Your task to perform on an android device: add a label to a message in the gmail app Image 0: 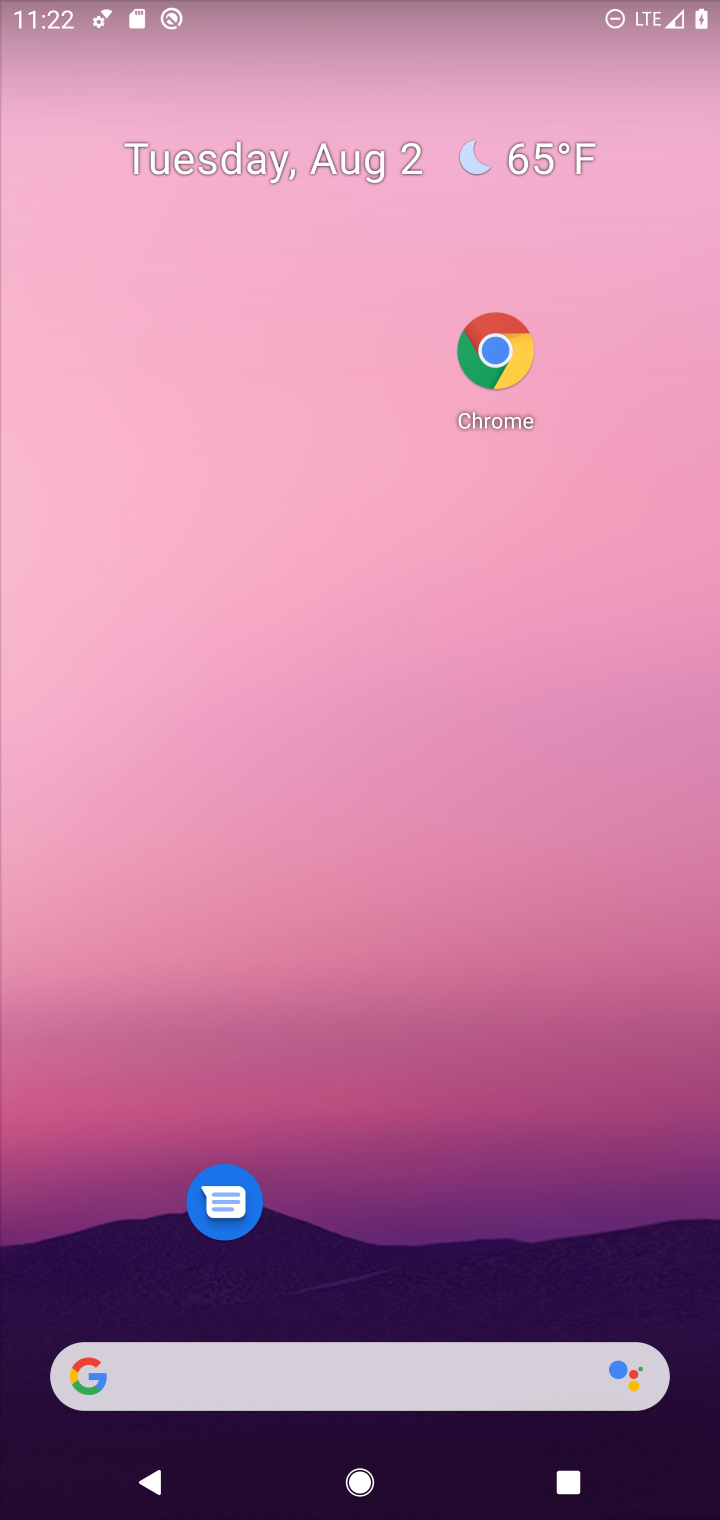
Step 0: drag from (331, 1171) to (395, 217)
Your task to perform on an android device: add a label to a message in the gmail app Image 1: 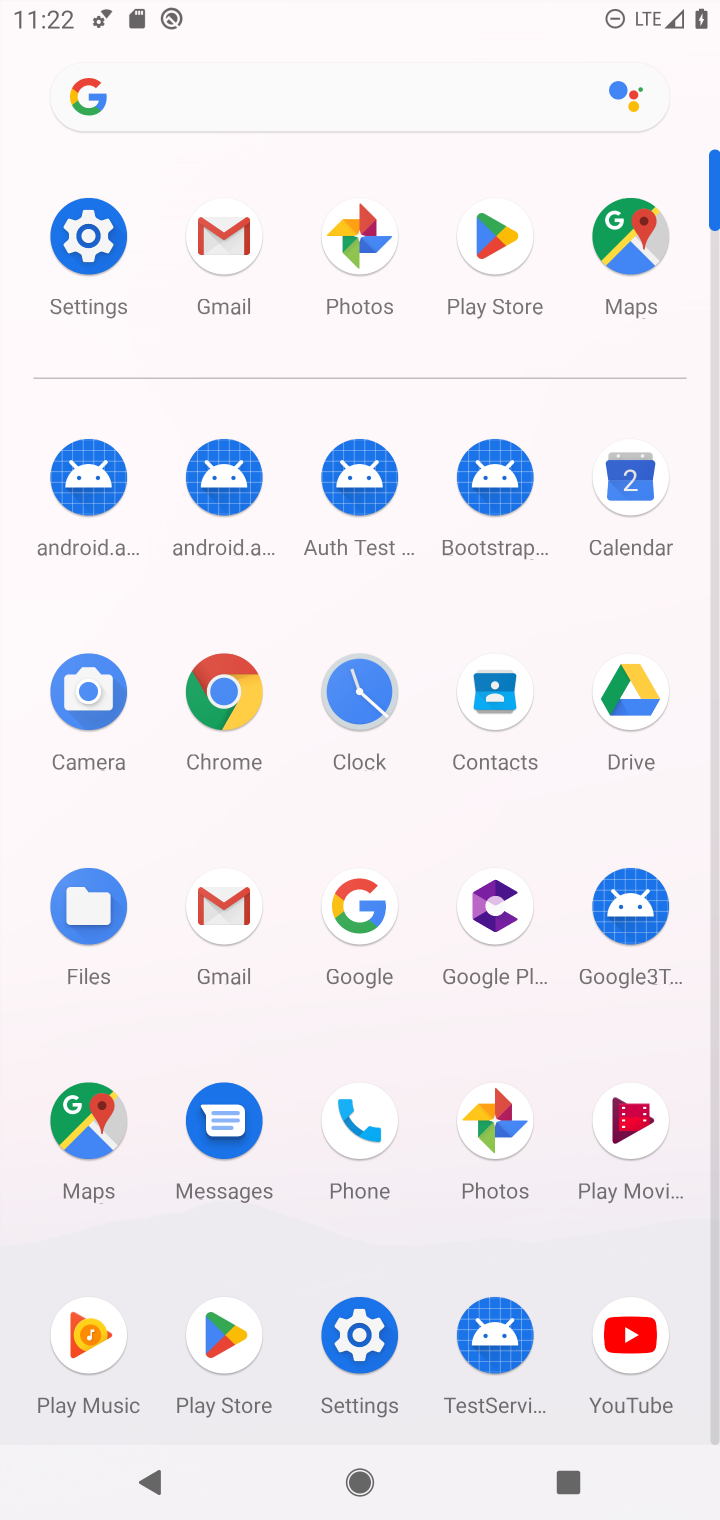
Step 1: click (229, 244)
Your task to perform on an android device: add a label to a message in the gmail app Image 2: 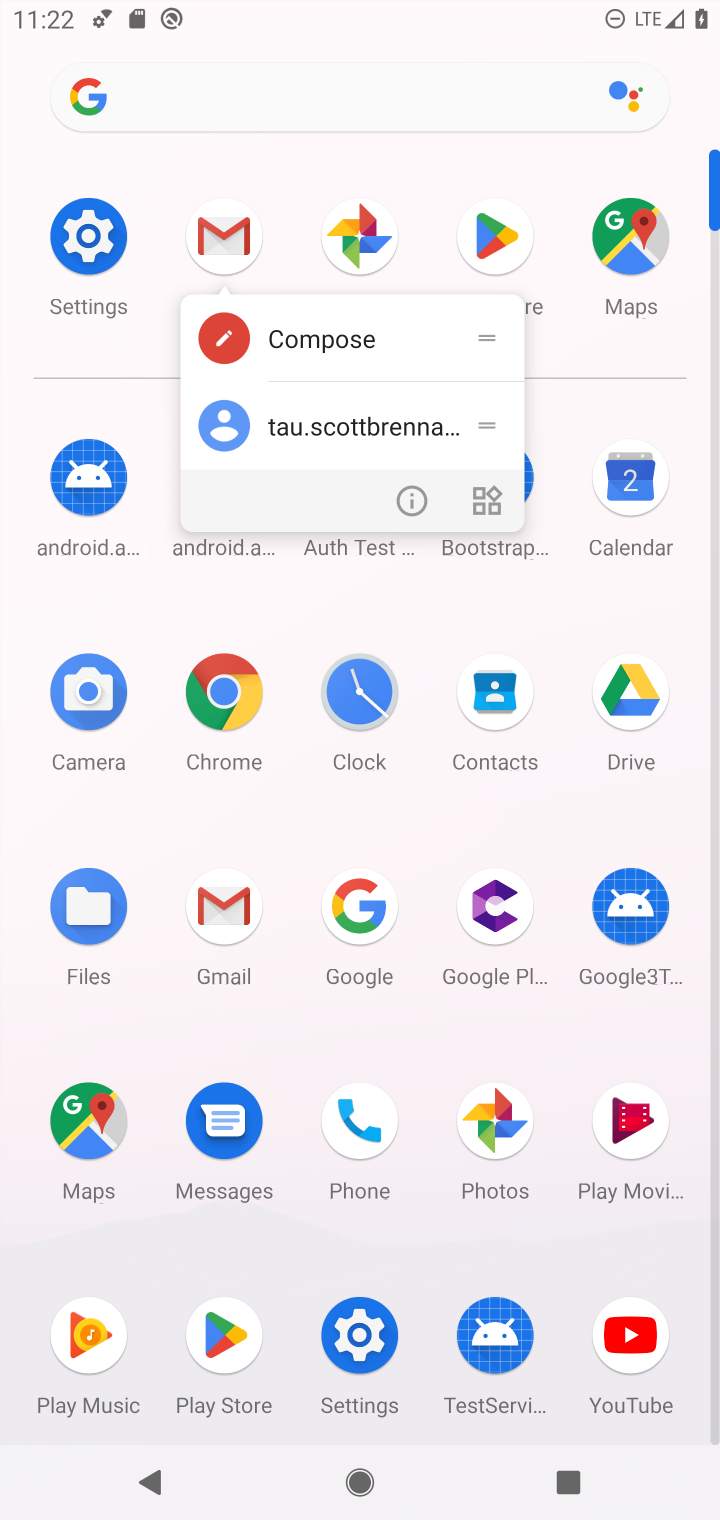
Step 2: click (229, 244)
Your task to perform on an android device: add a label to a message in the gmail app Image 3: 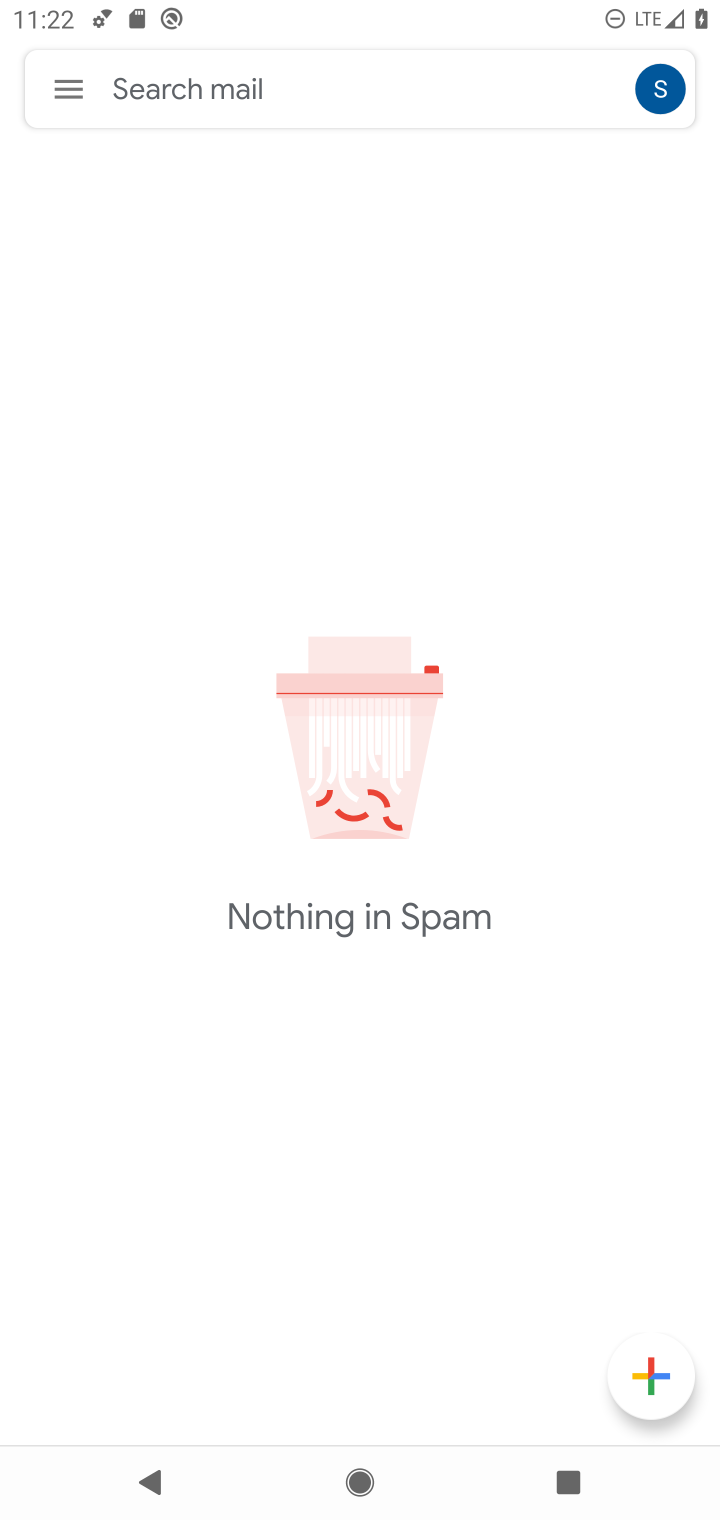
Step 3: click (52, 87)
Your task to perform on an android device: add a label to a message in the gmail app Image 4: 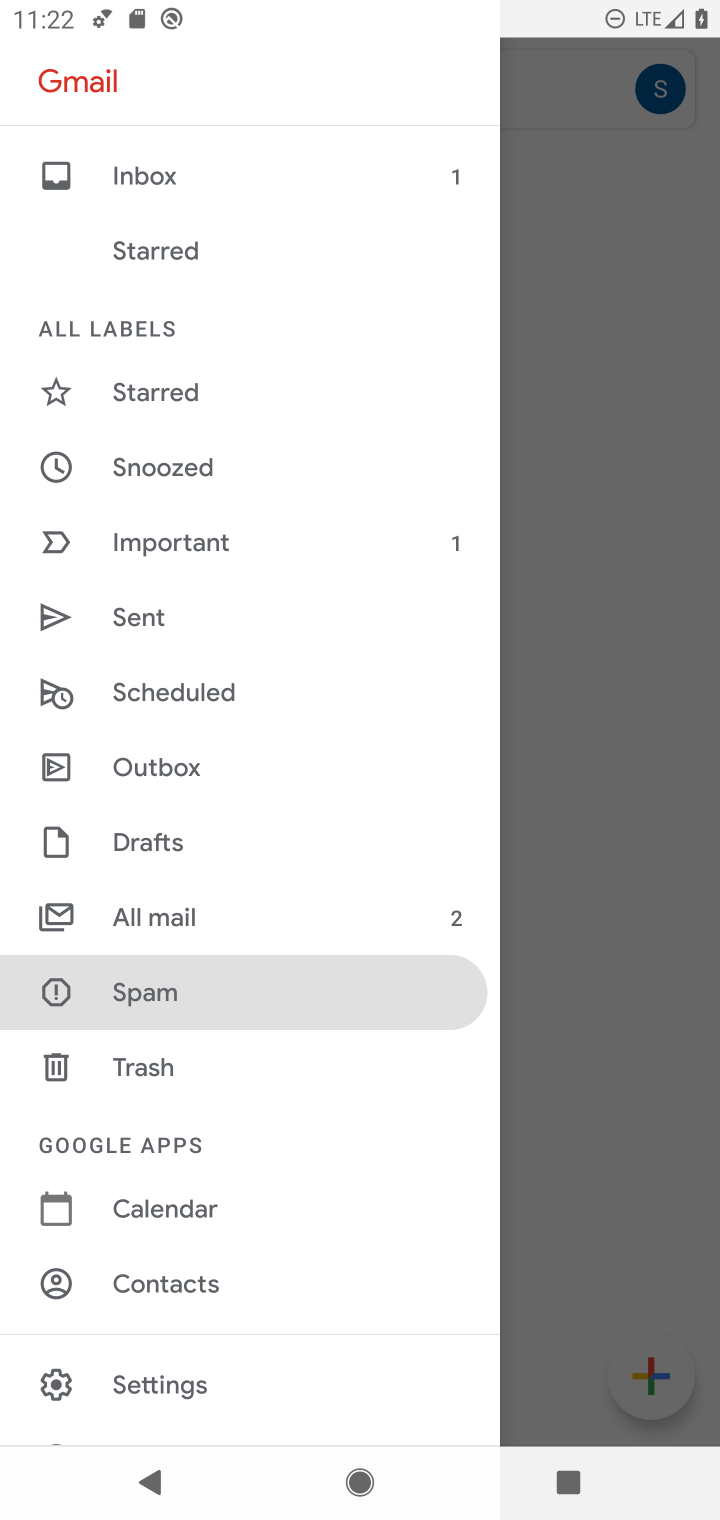
Step 4: click (163, 916)
Your task to perform on an android device: add a label to a message in the gmail app Image 5: 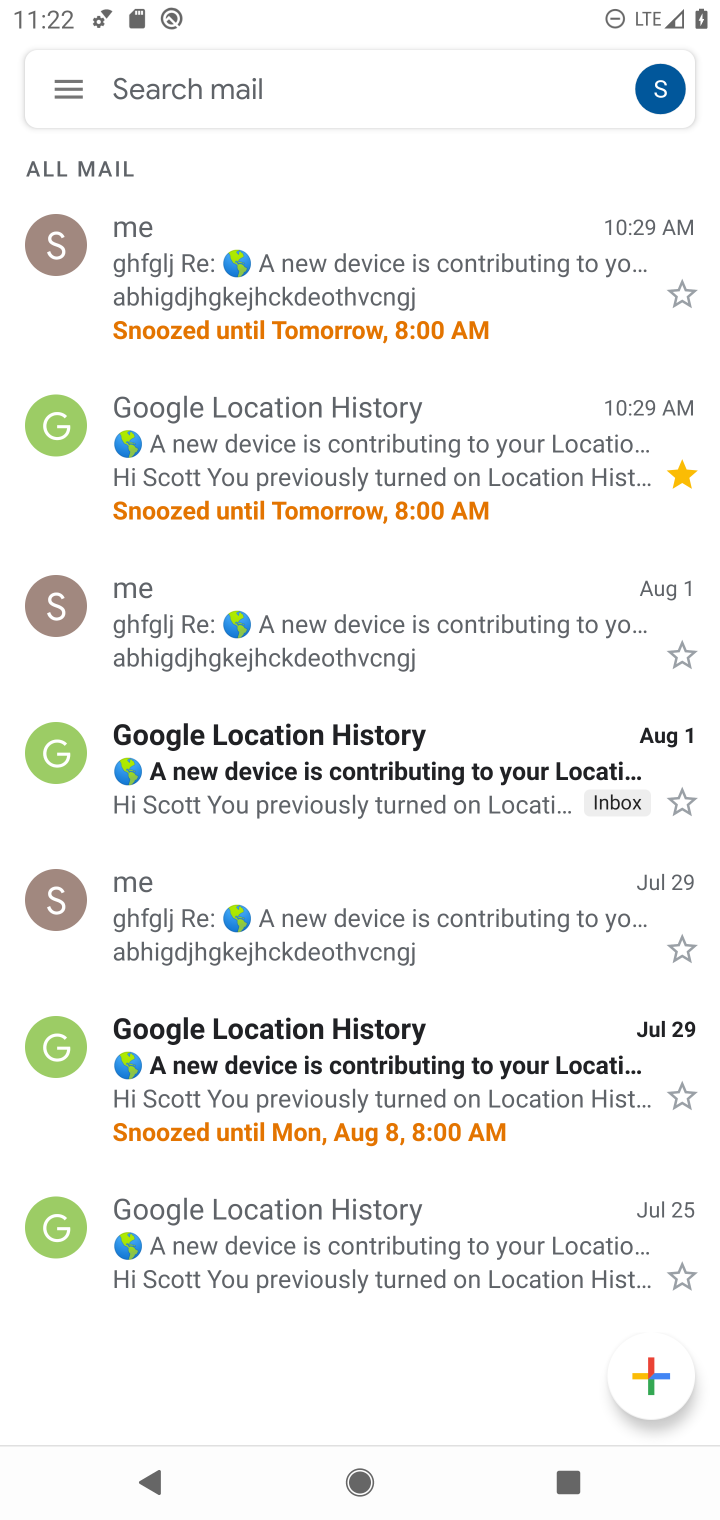
Step 5: click (382, 291)
Your task to perform on an android device: add a label to a message in the gmail app Image 6: 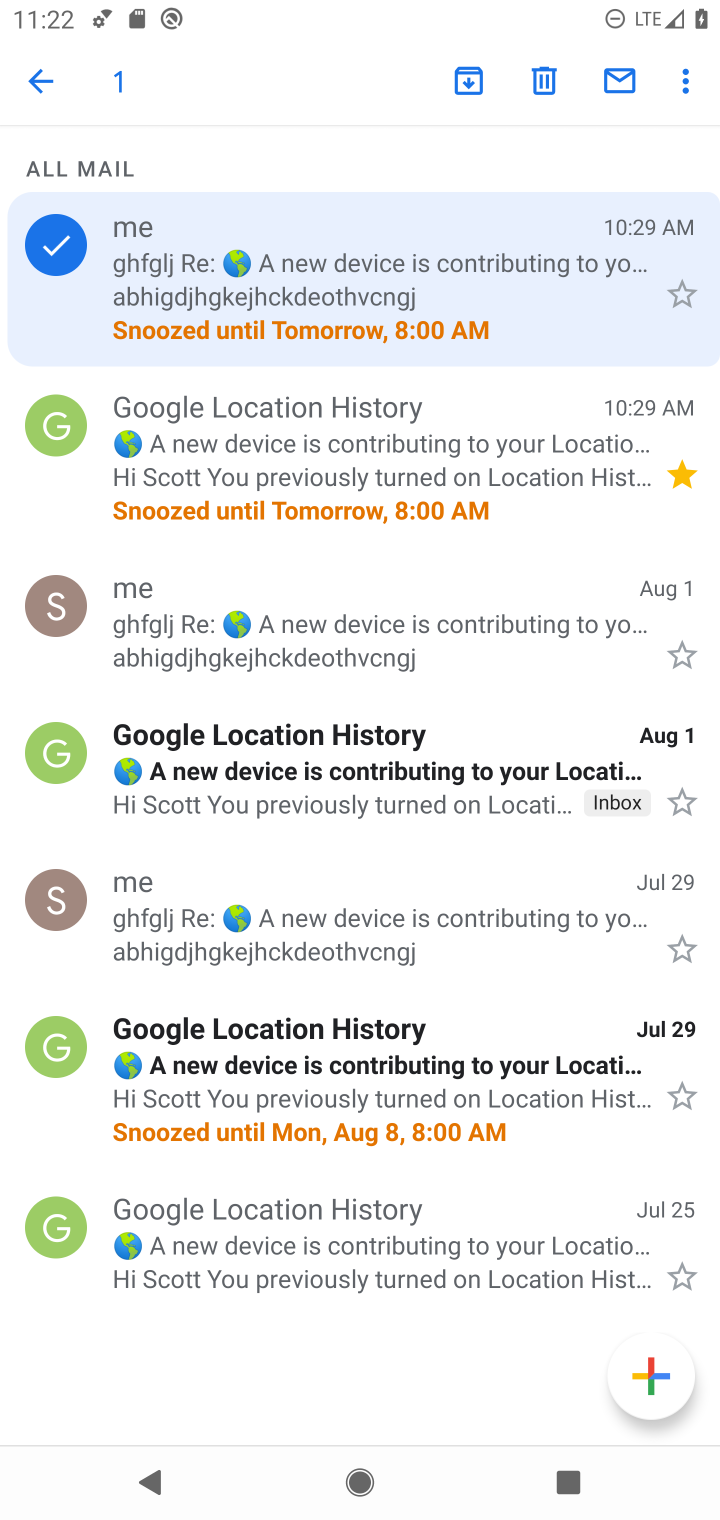
Step 6: click (688, 92)
Your task to perform on an android device: add a label to a message in the gmail app Image 7: 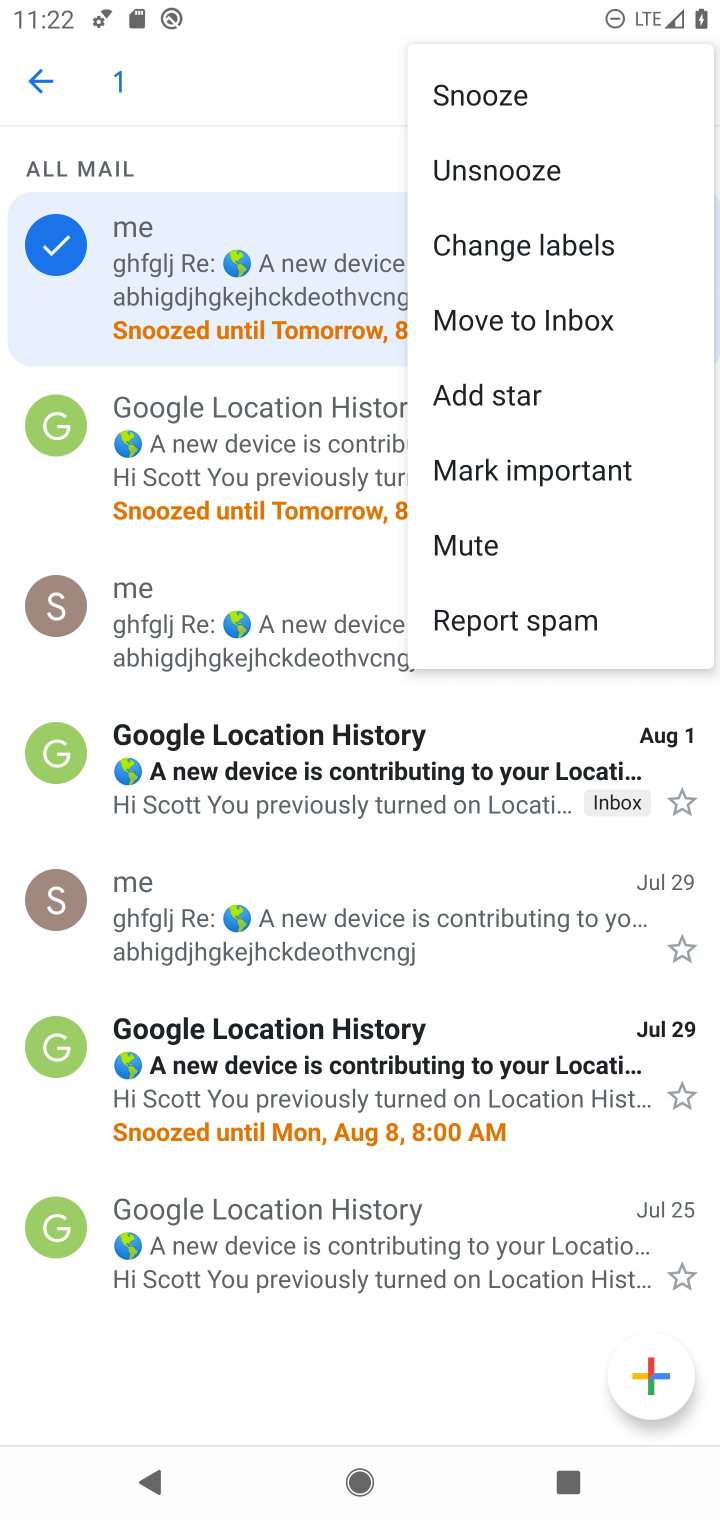
Step 7: click (253, 263)
Your task to perform on an android device: add a label to a message in the gmail app Image 8: 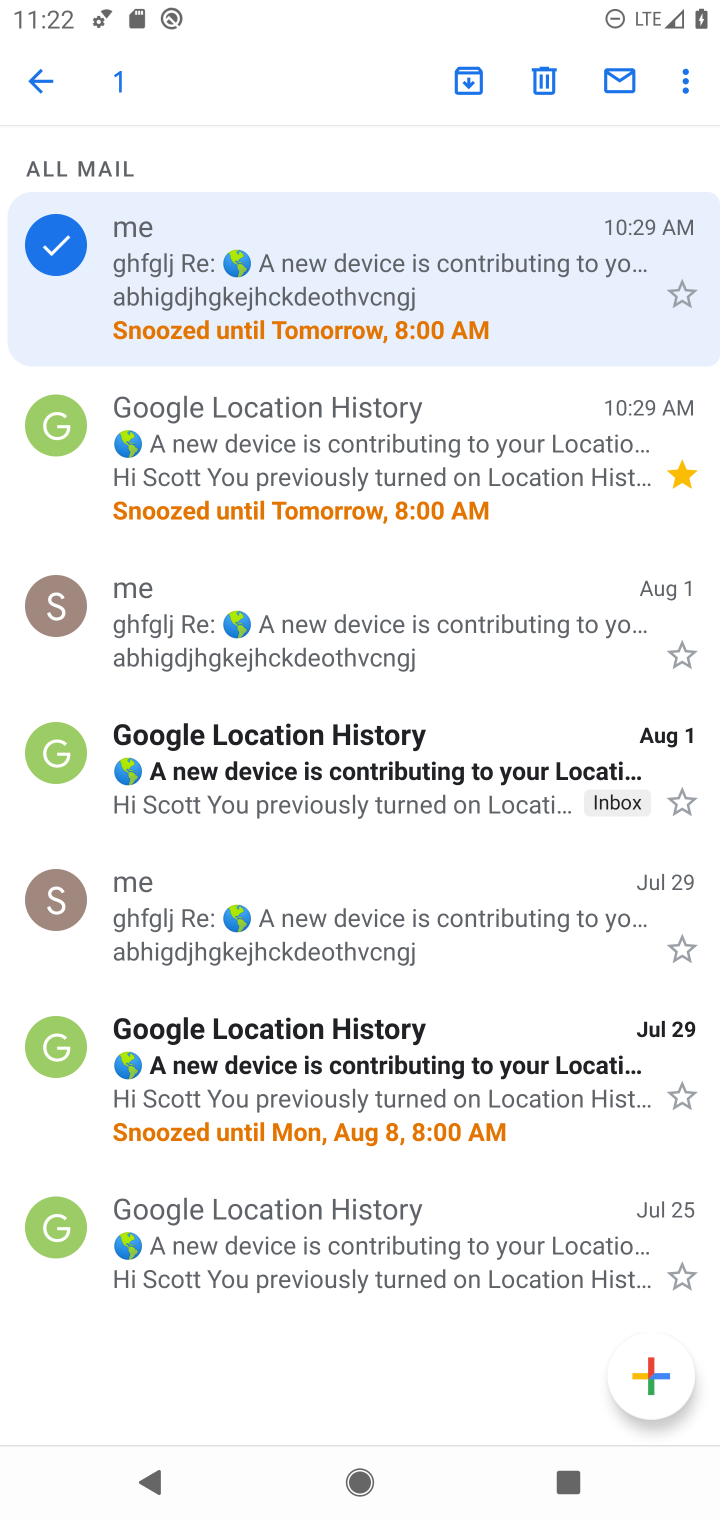
Step 8: click (281, 282)
Your task to perform on an android device: add a label to a message in the gmail app Image 9: 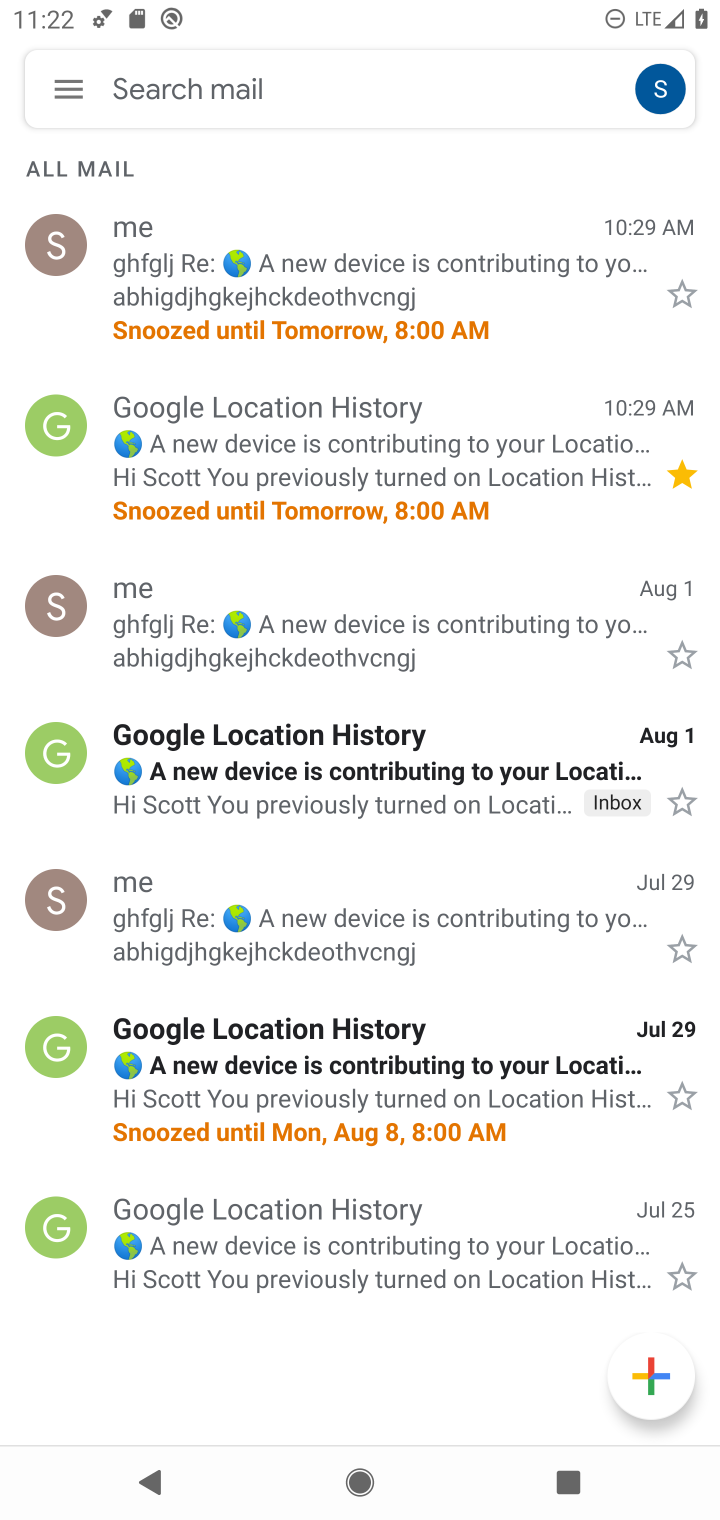
Step 9: click (408, 267)
Your task to perform on an android device: add a label to a message in the gmail app Image 10: 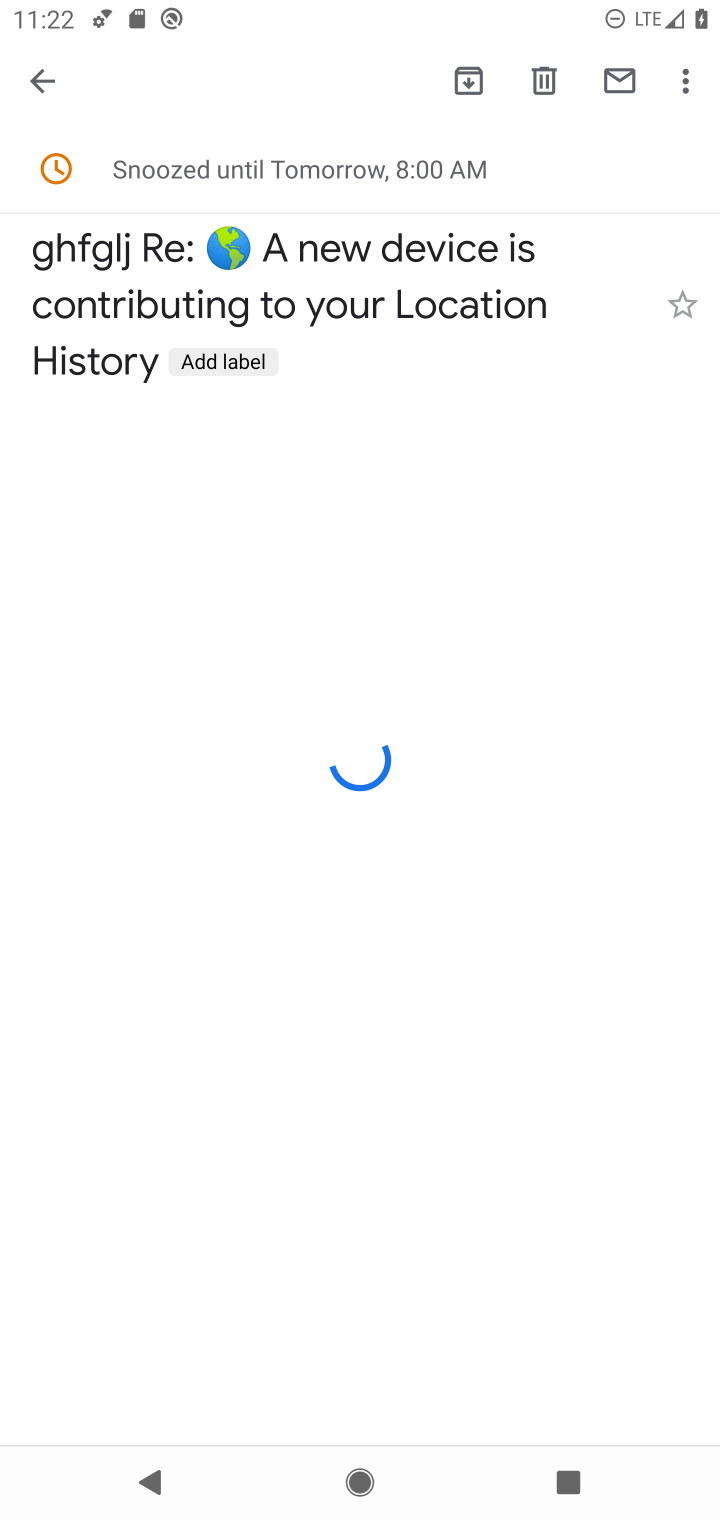
Step 10: click (408, 267)
Your task to perform on an android device: add a label to a message in the gmail app Image 11: 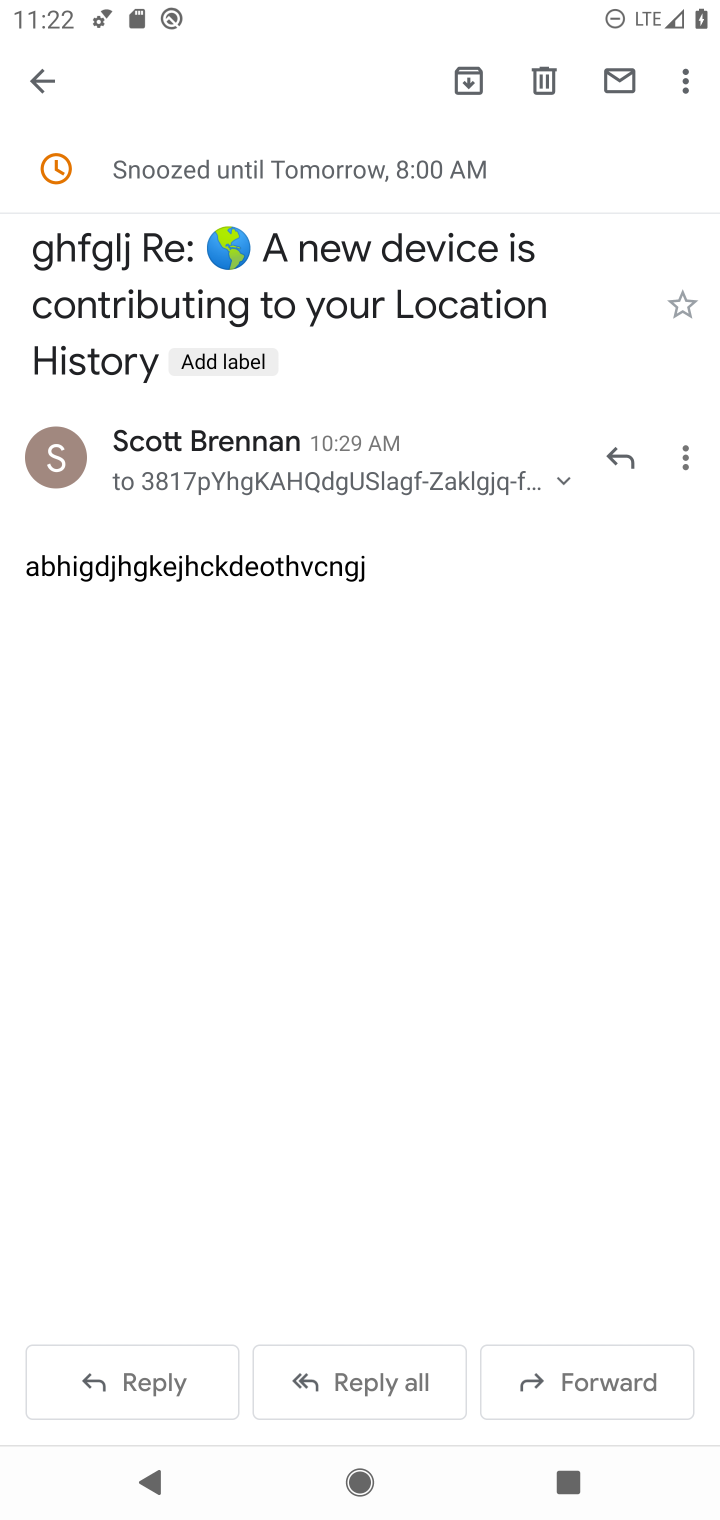
Step 11: click (226, 362)
Your task to perform on an android device: add a label to a message in the gmail app Image 12: 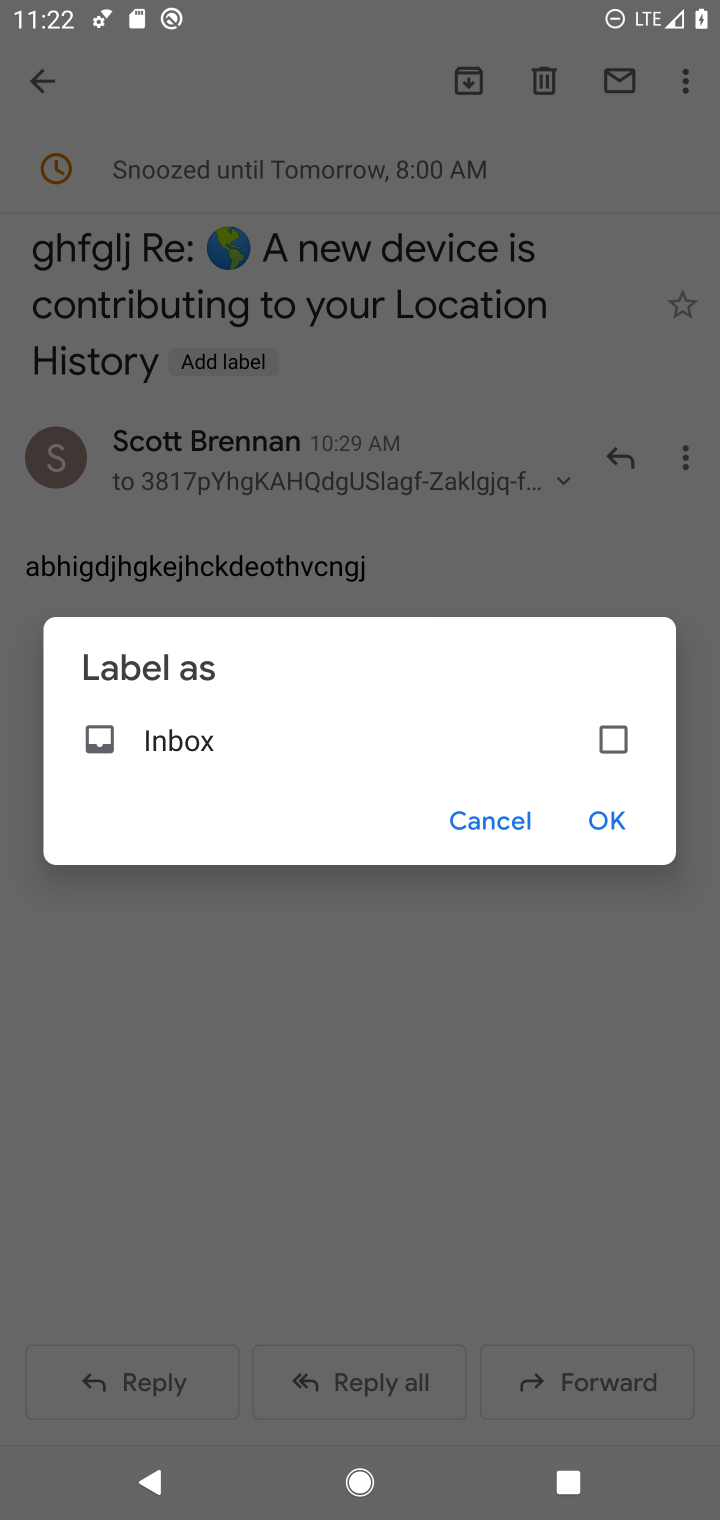
Step 12: click (617, 742)
Your task to perform on an android device: add a label to a message in the gmail app Image 13: 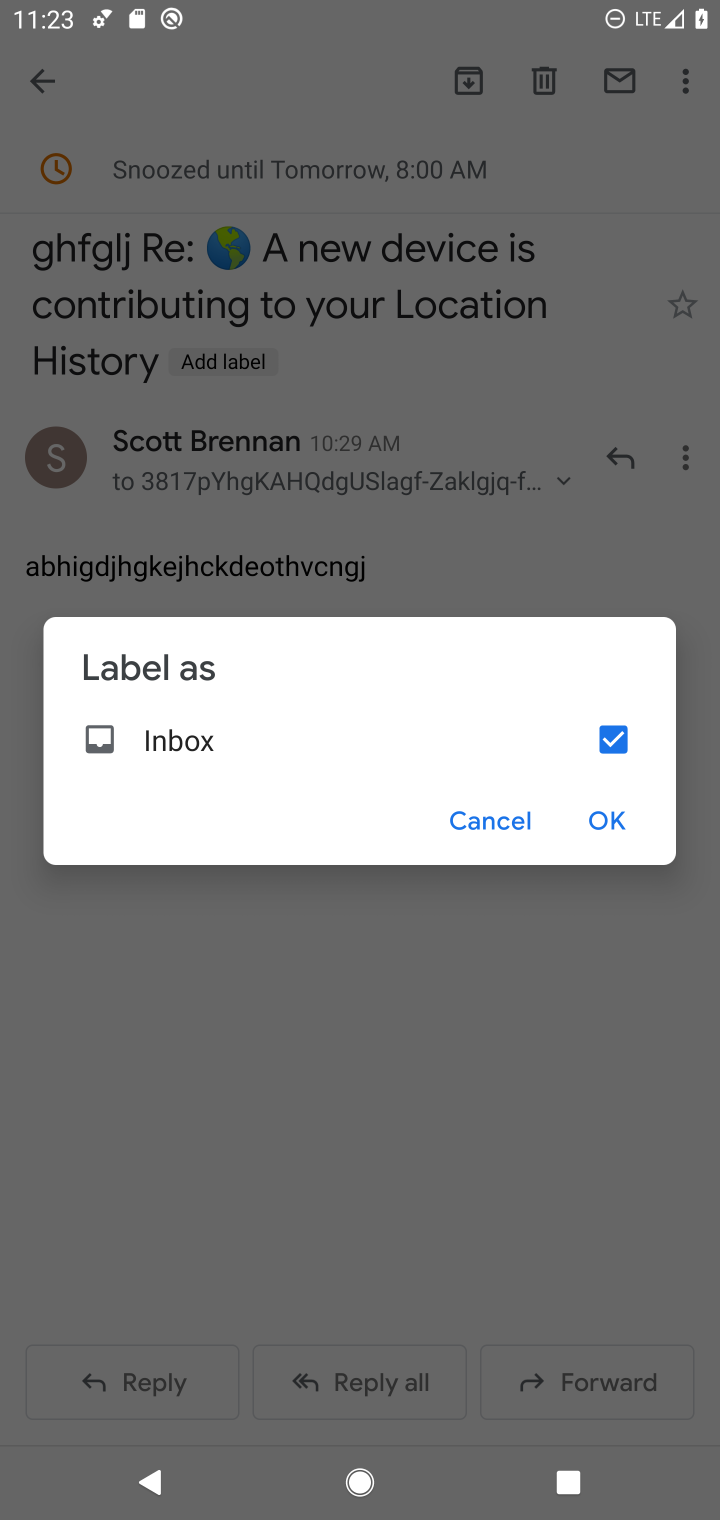
Step 13: click (607, 819)
Your task to perform on an android device: add a label to a message in the gmail app Image 14: 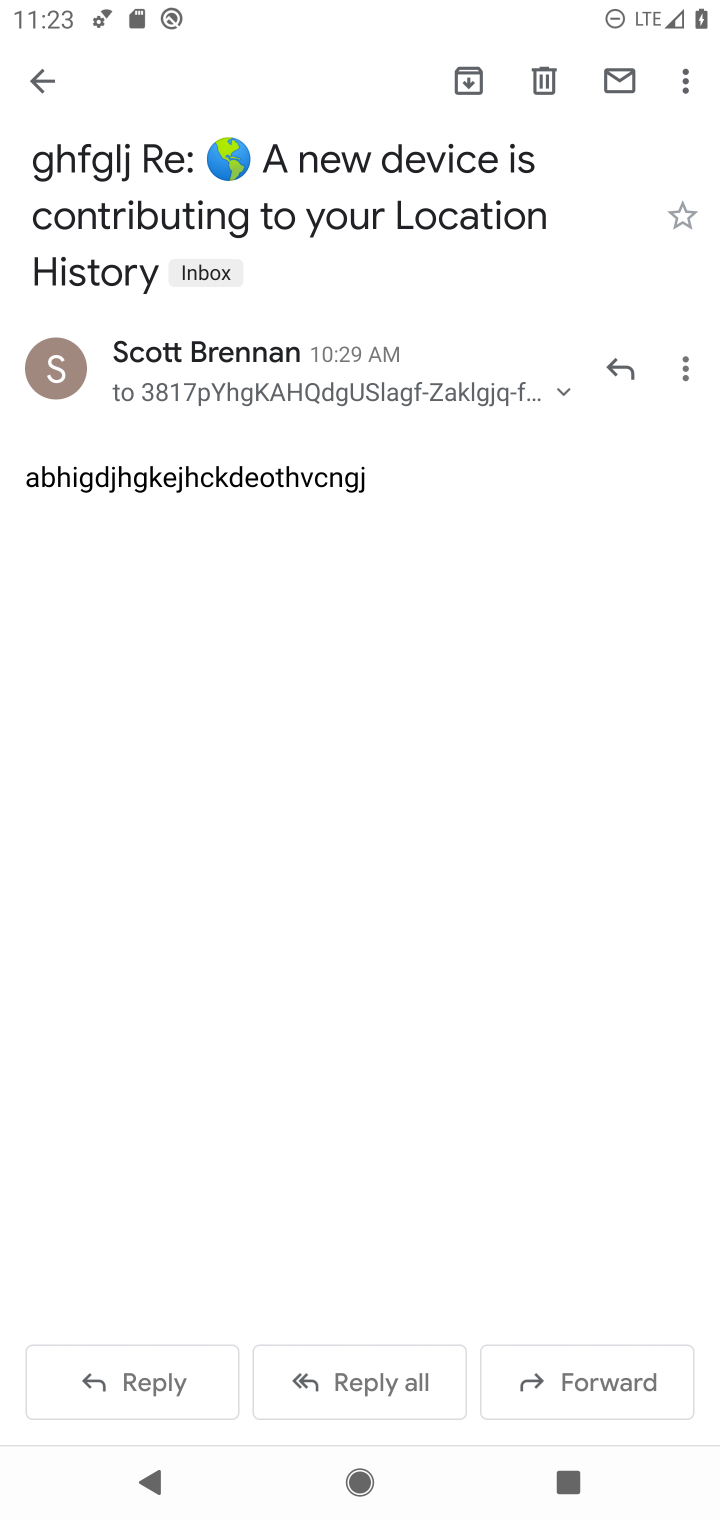
Step 14: task complete